Your task to perform on an android device: When is my next meeting? Image 0: 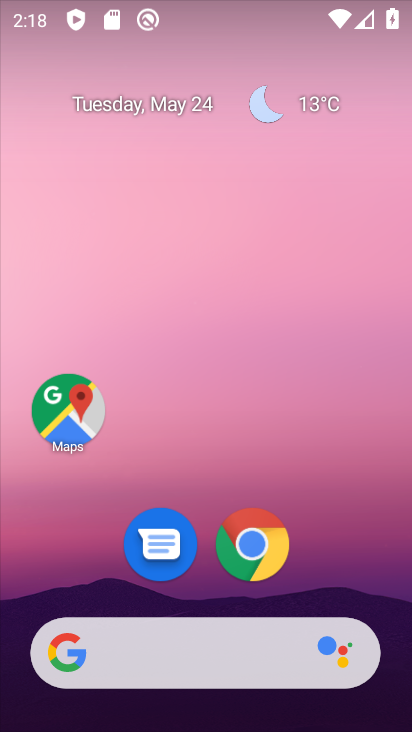
Step 0: drag from (367, 529) to (385, 186)
Your task to perform on an android device: When is my next meeting? Image 1: 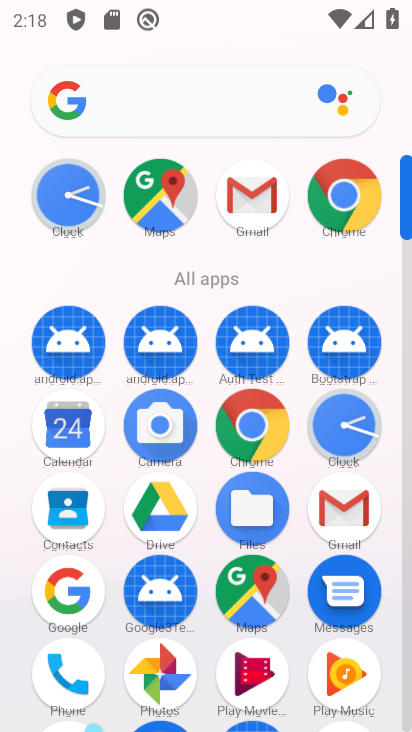
Step 1: click (86, 447)
Your task to perform on an android device: When is my next meeting? Image 2: 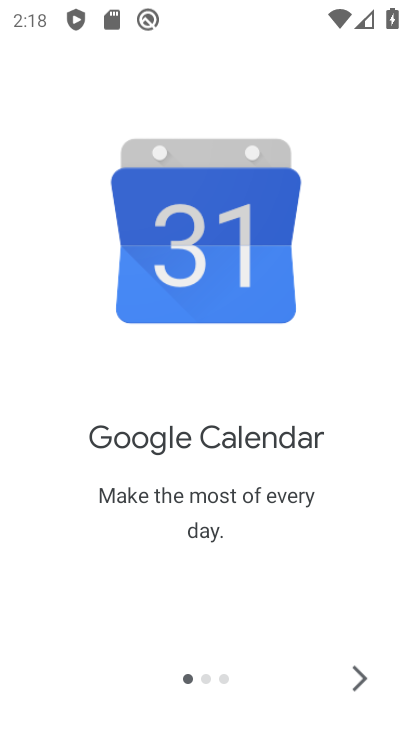
Step 2: click (343, 685)
Your task to perform on an android device: When is my next meeting? Image 3: 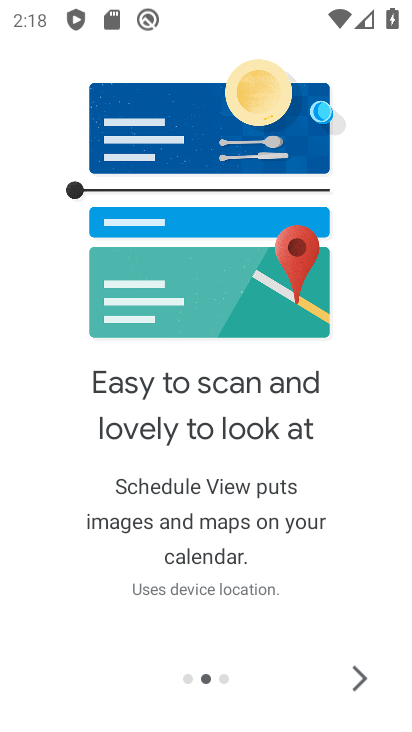
Step 3: click (343, 682)
Your task to perform on an android device: When is my next meeting? Image 4: 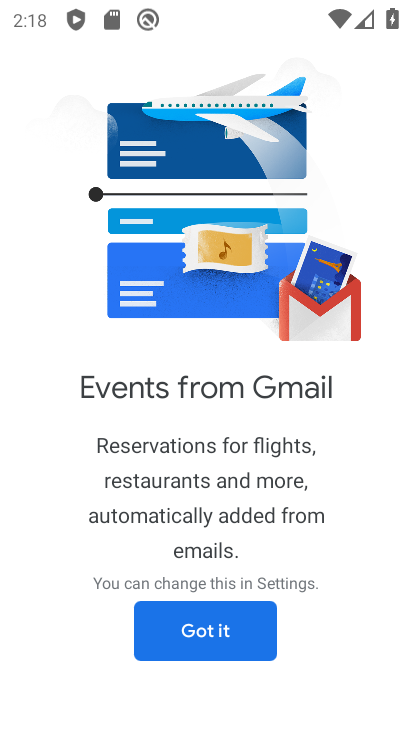
Step 4: click (237, 640)
Your task to perform on an android device: When is my next meeting? Image 5: 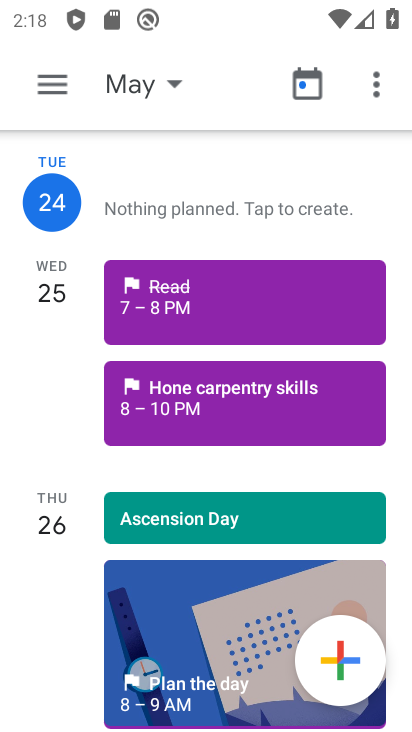
Step 5: click (139, 81)
Your task to perform on an android device: When is my next meeting? Image 6: 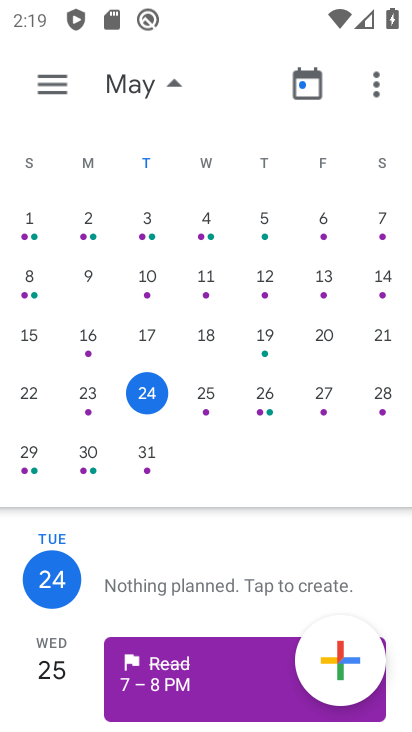
Step 6: click (202, 400)
Your task to perform on an android device: When is my next meeting? Image 7: 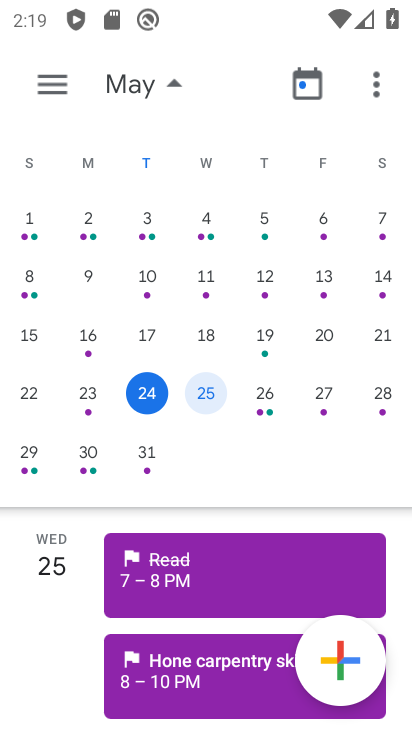
Step 7: task complete